Your task to perform on an android device: Open Google Image 0: 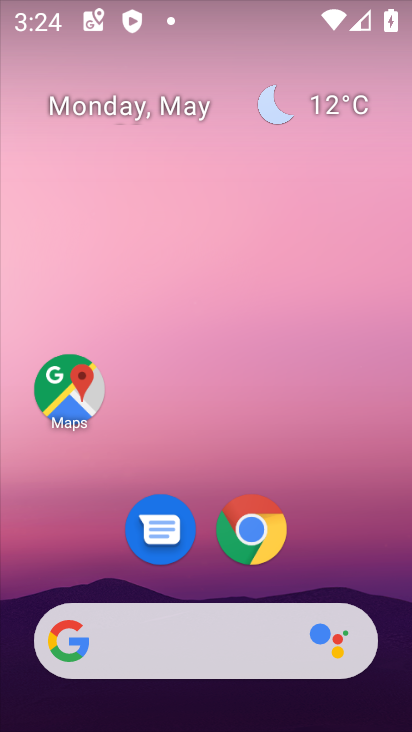
Step 0: drag from (357, 518) to (350, 80)
Your task to perform on an android device: Open Google Image 1: 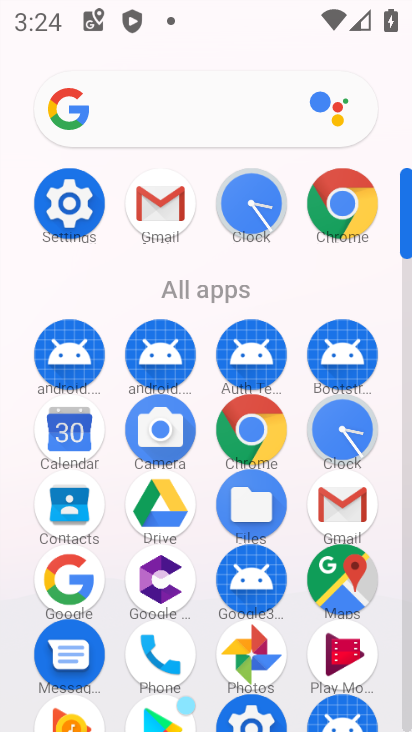
Step 1: drag from (299, 613) to (305, 398)
Your task to perform on an android device: Open Google Image 2: 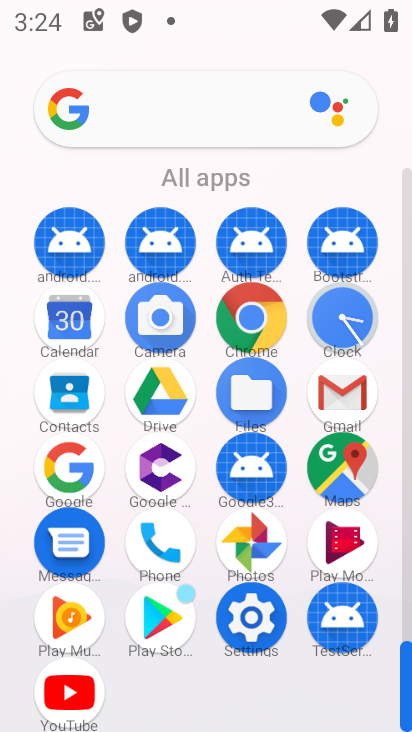
Step 2: click (75, 454)
Your task to perform on an android device: Open Google Image 3: 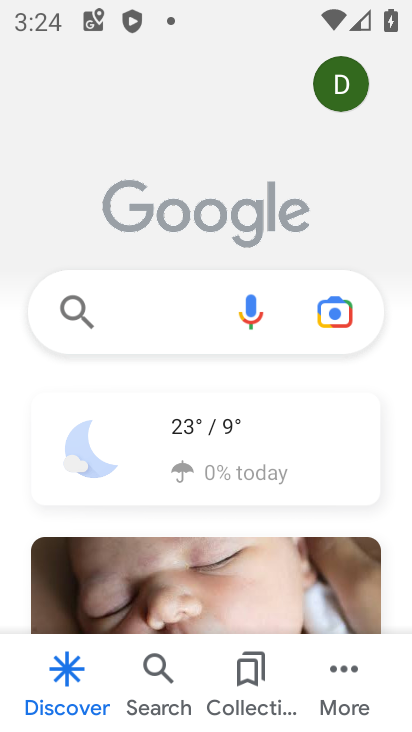
Step 3: task complete